Your task to perform on an android device: turn on improve location accuracy Image 0: 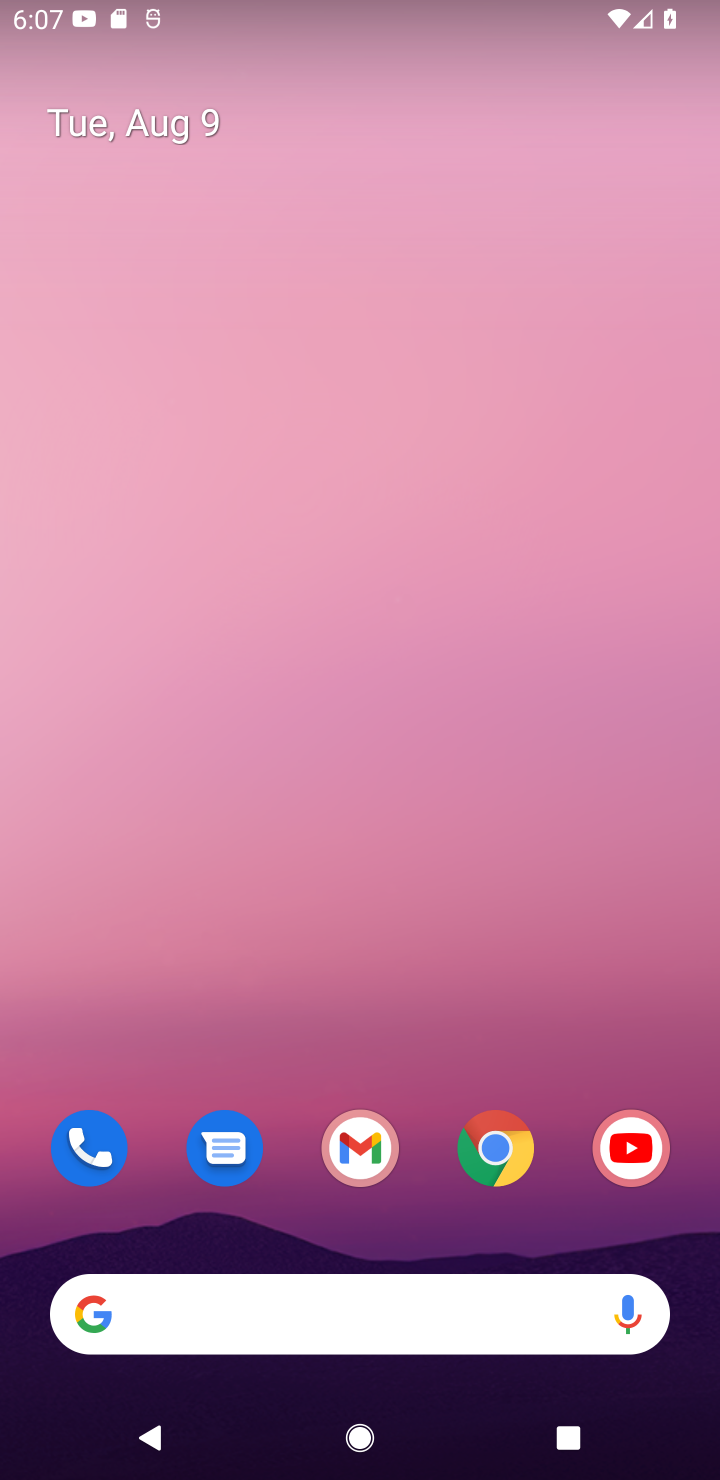
Step 0: drag from (284, 1117) to (524, 480)
Your task to perform on an android device: turn on improve location accuracy Image 1: 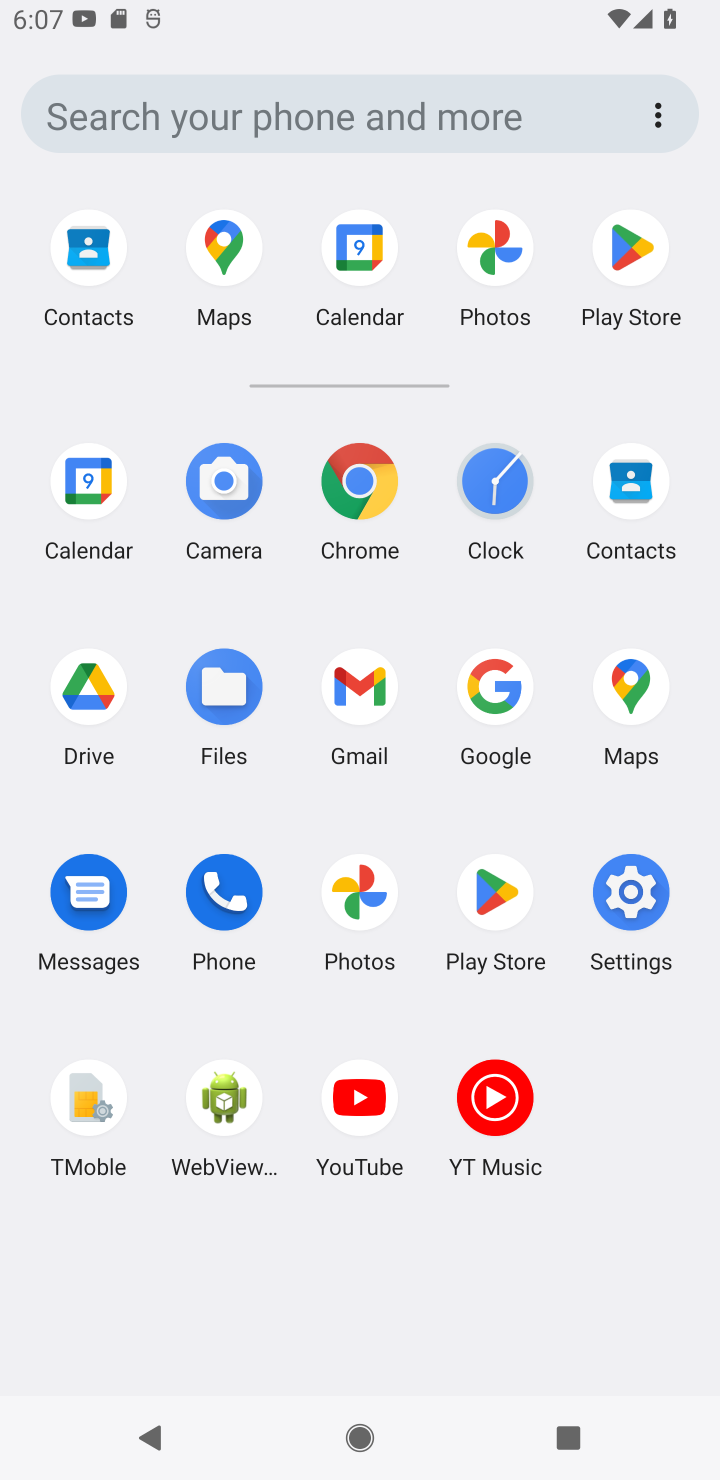
Step 1: click (648, 929)
Your task to perform on an android device: turn on improve location accuracy Image 2: 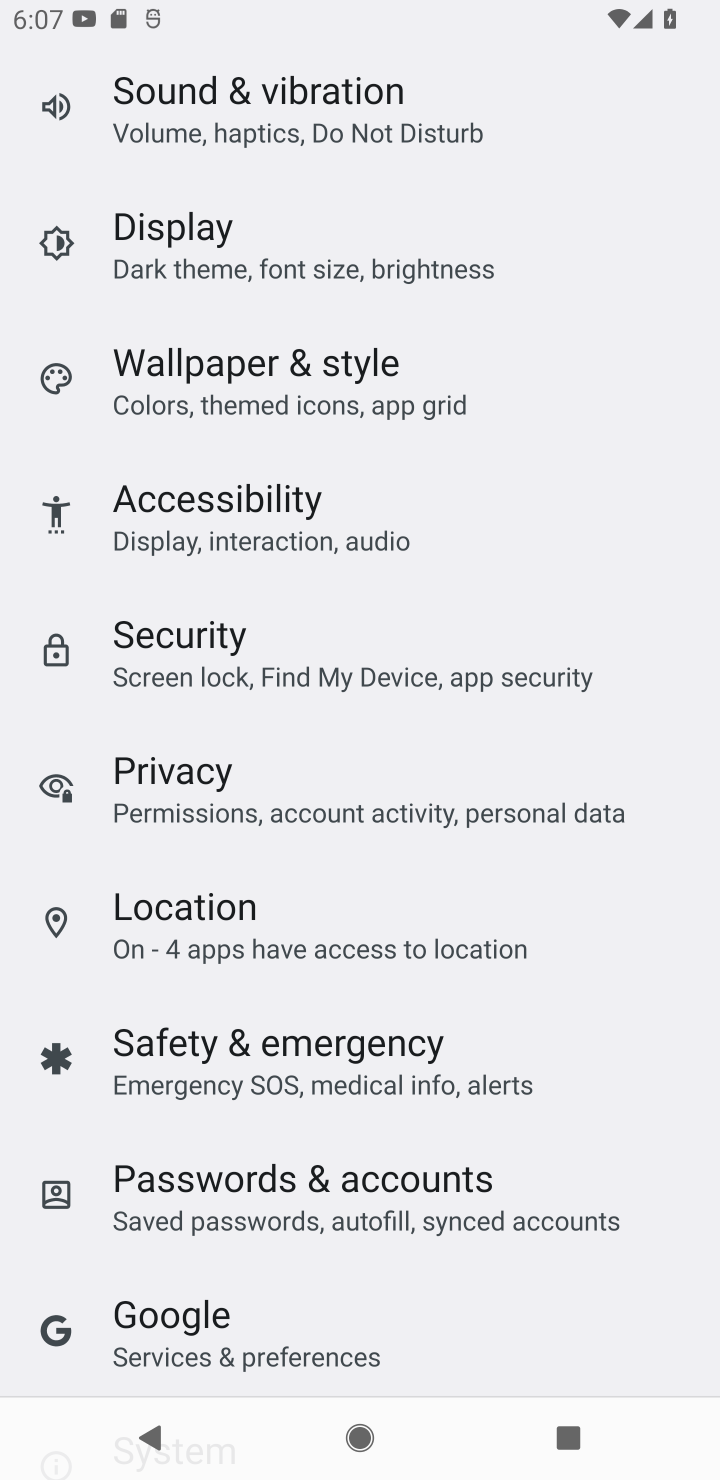
Step 2: click (315, 937)
Your task to perform on an android device: turn on improve location accuracy Image 3: 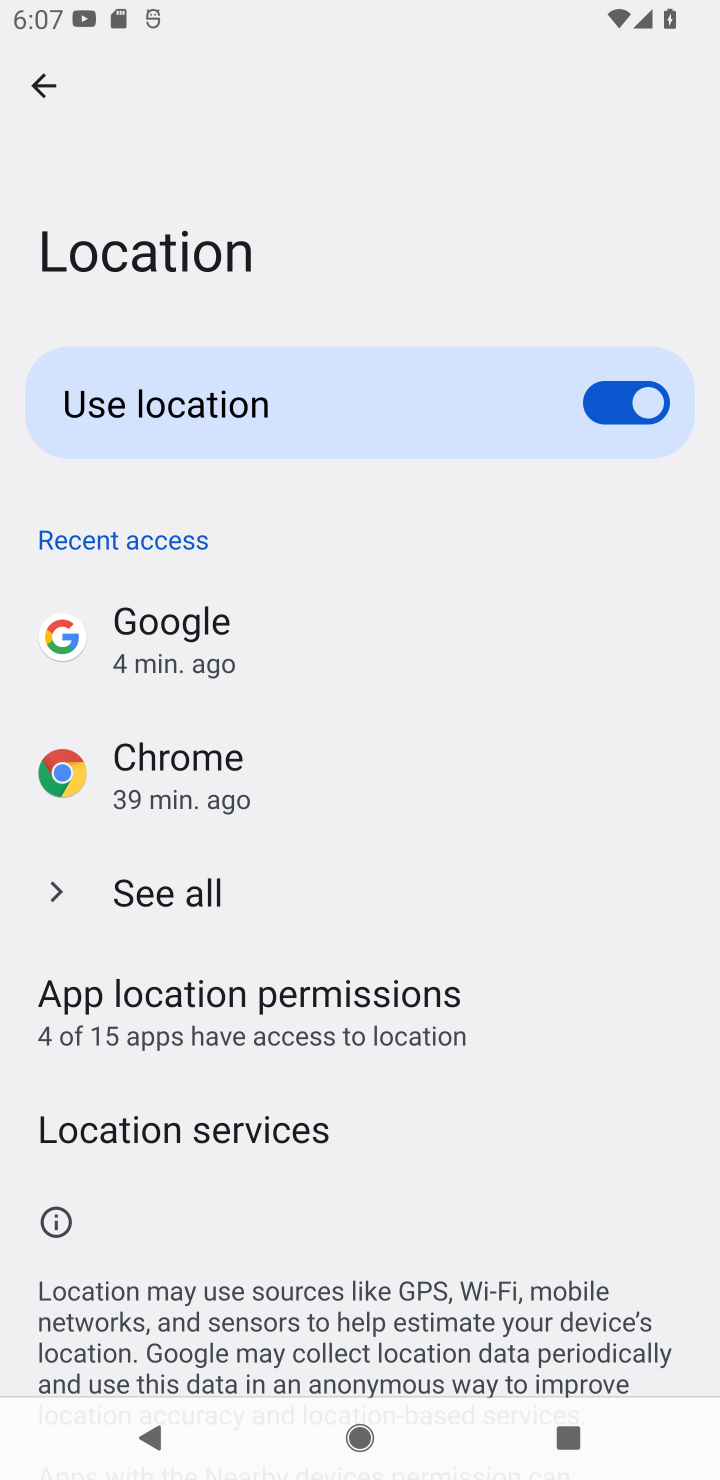
Step 3: click (237, 1142)
Your task to perform on an android device: turn on improve location accuracy Image 4: 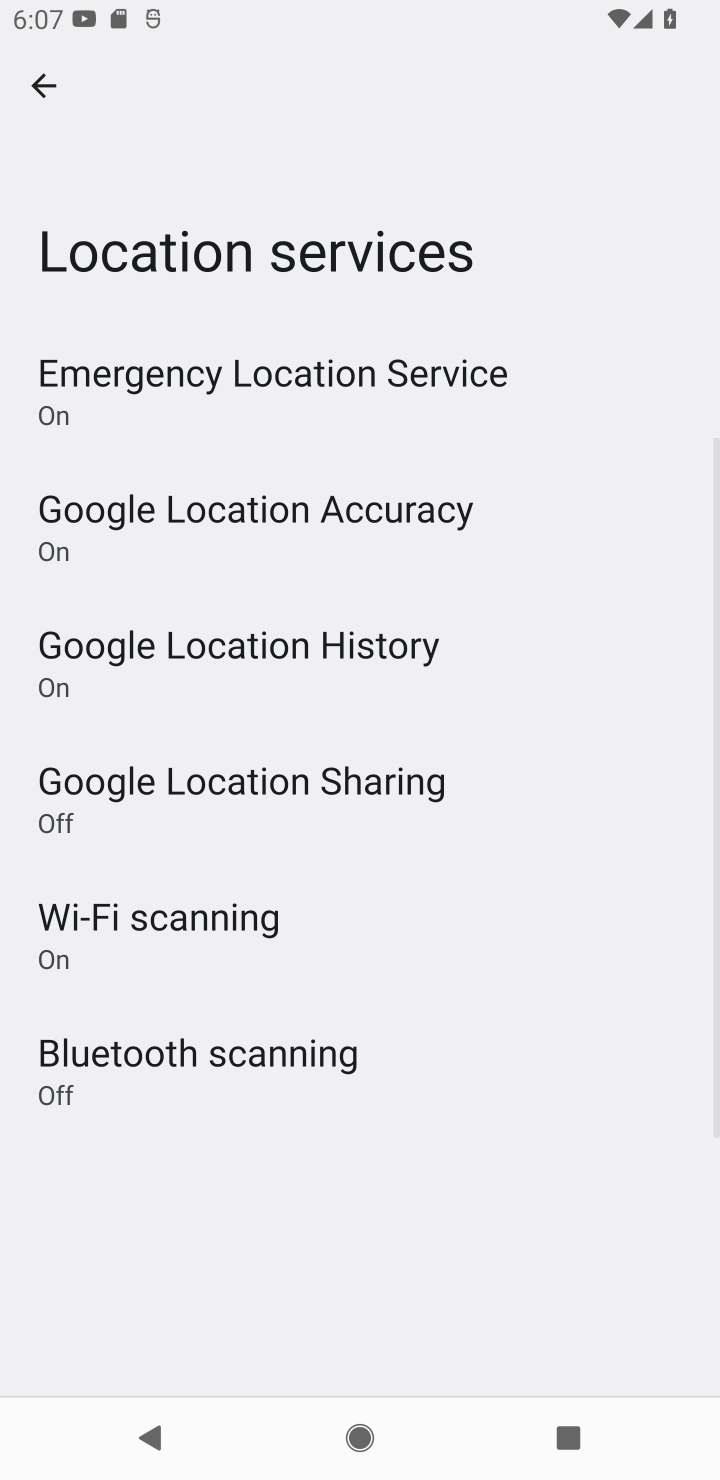
Step 4: click (395, 521)
Your task to perform on an android device: turn on improve location accuracy Image 5: 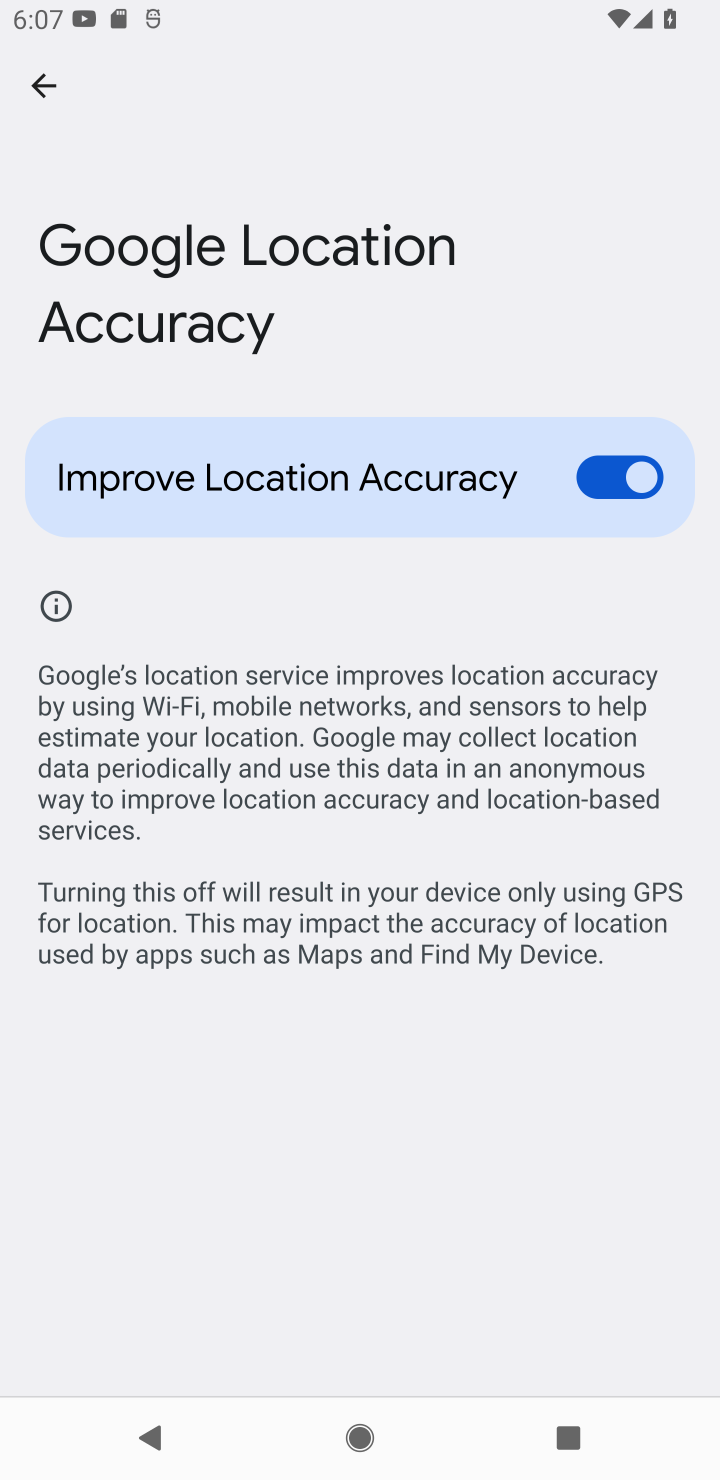
Step 5: task complete